Your task to perform on an android device: What's the weather today? Image 0: 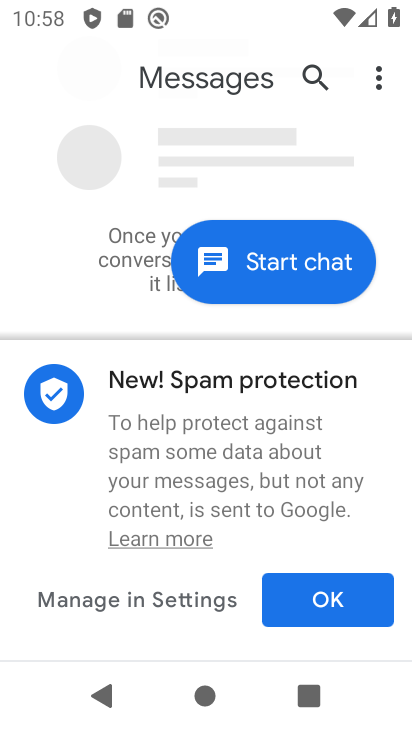
Step 0: press home button
Your task to perform on an android device: What's the weather today? Image 1: 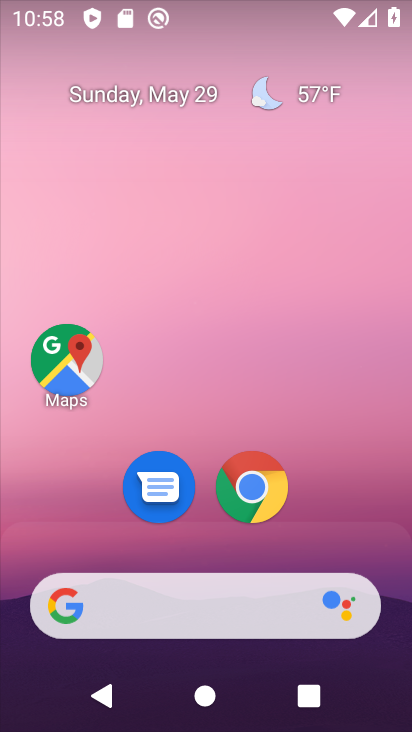
Step 1: drag from (2, 263) to (385, 244)
Your task to perform on an android device: What's the weather today? Image 2: 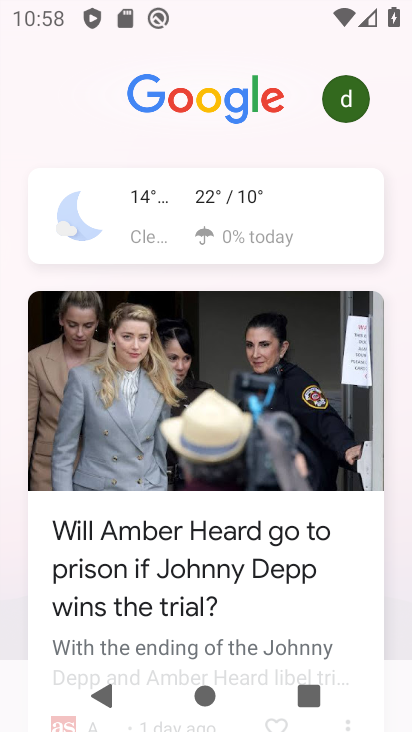
Step 2: click (269, 229)
Your task to perform on an android device: What's the weather today? Image 3: 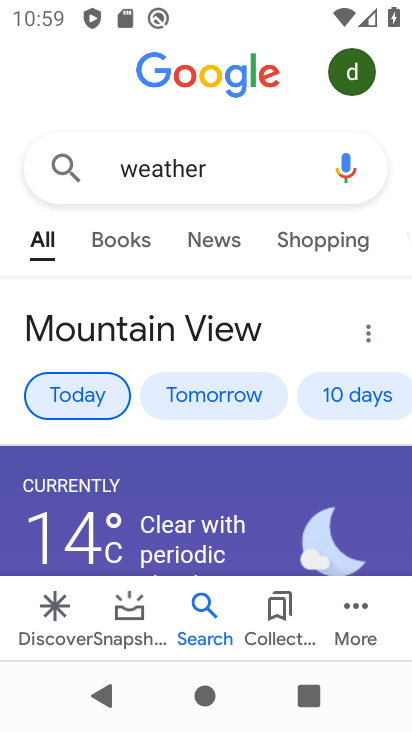
Step 3: task complete